Your task to perform on an android device: toggle data saver in the chrome app Image 0: 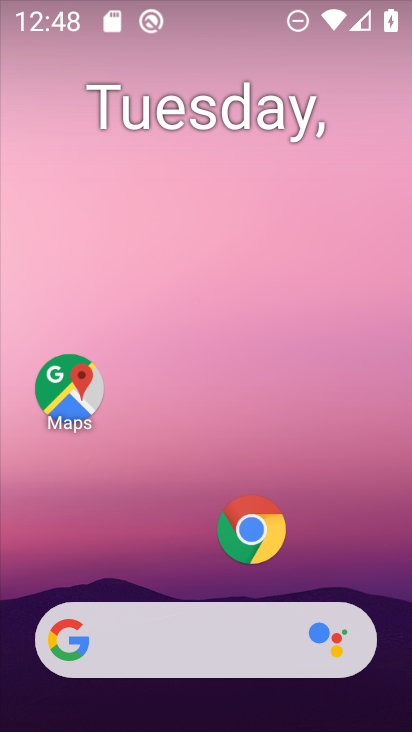
Step 0: press back button
Your task to perform on an android device: toggle data saver in the chrome app Image 1: 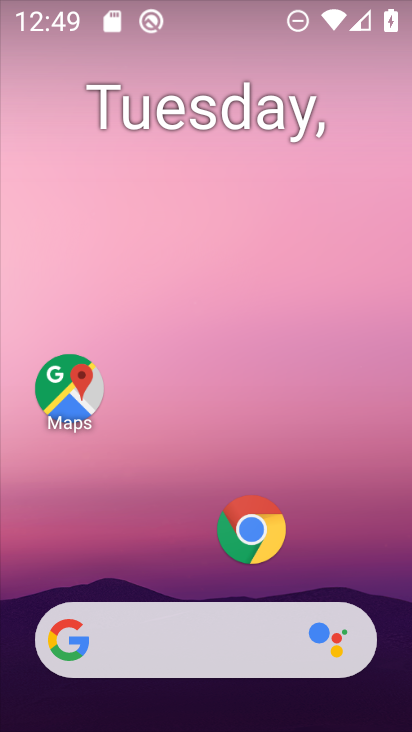
Step 1: click (278, 527)
Your task to perform on an android device: toggle data saver in the chrome app Image 2: 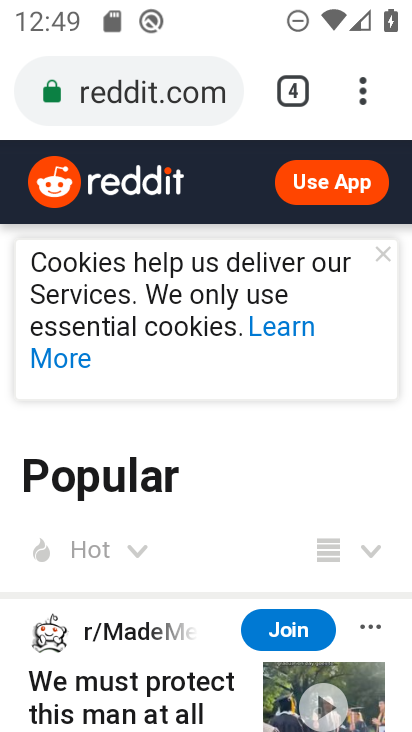
Step 2: click (363, 82)
Your task to perform on an android device: toggle data saver in the chrome app Image 3: 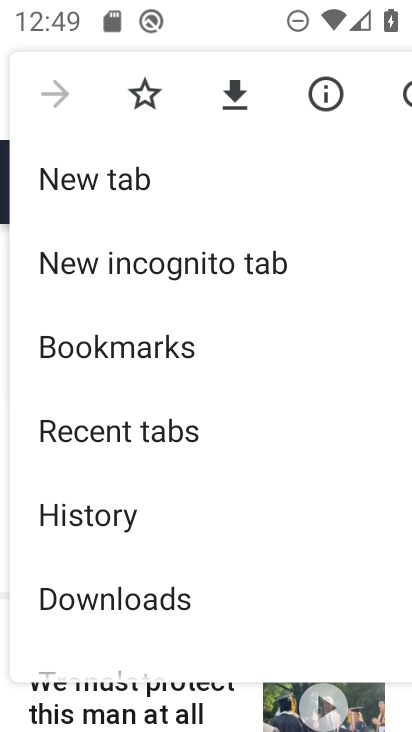
Step 3: drag from (256, 594) to (307, 212)
Your task to perform on an android device: toggle data saver in the chrome app Image 4: 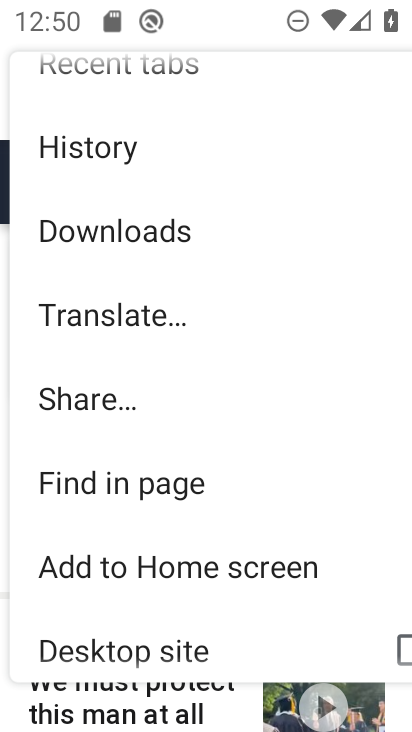
Step 4: drag from (159, 609) to (199, 392)
Your task to perform on an android device: toggle data saver in the chrome app Image 5: 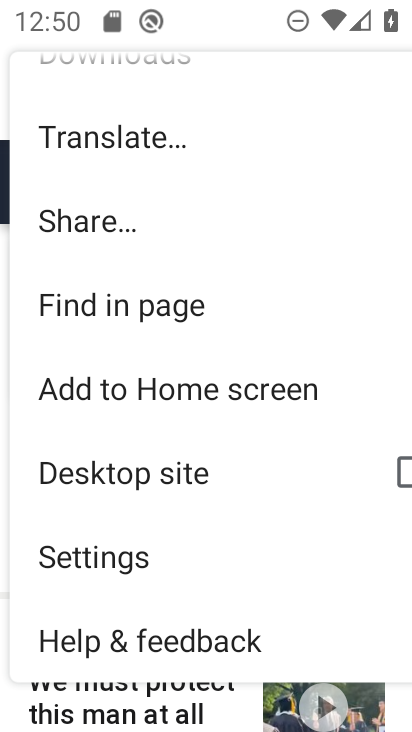
Step 5: click (92, 549)
Your task to perform on an android device: toggle data saver in the chrome app Image 6: 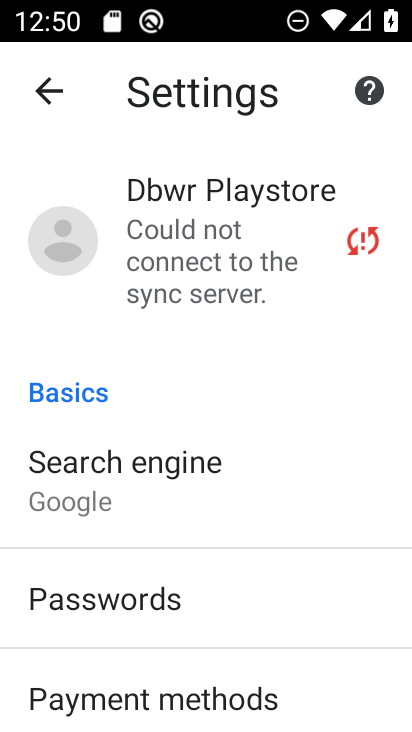
Step 6: drag from (142, 572) to (239, 52)
Your task to perform on an android device: toggle data saver in the chrome app Image 7: 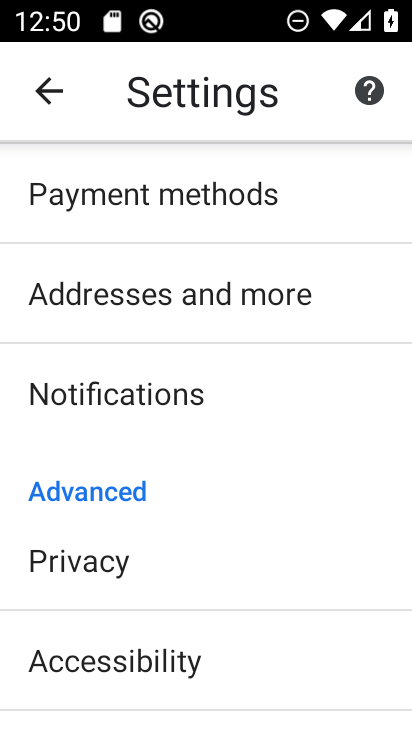
Step 7: drag from (185, 640) to (223, 362)
Your task to perform on an android device: toggle data saver in the chrome app Image 8: 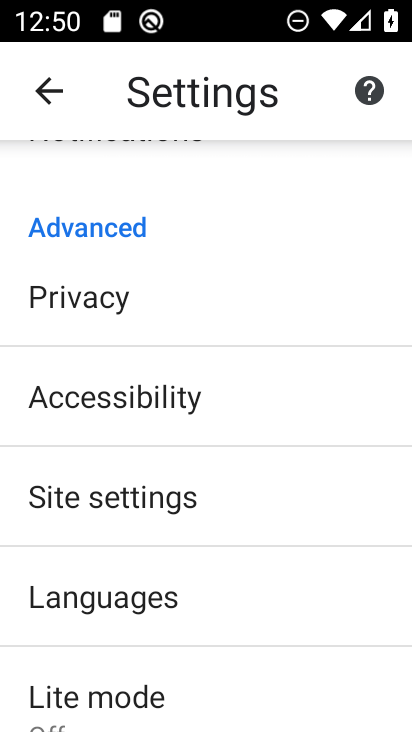
Step 8: click (105, 708)
Your task to perform on an android device: toggle data saver in the chrome app Image 9: 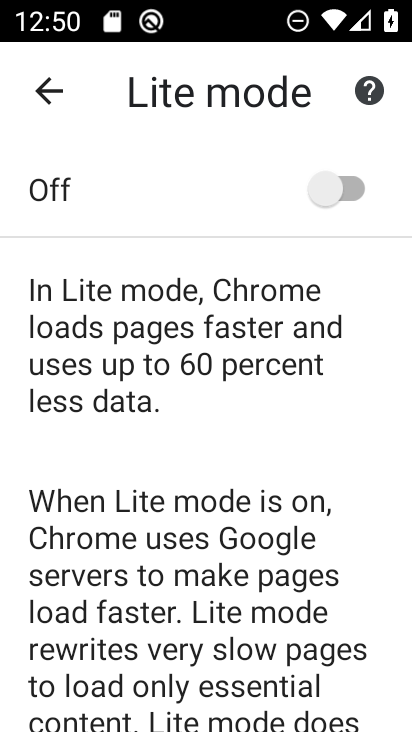
Step 9: task complete